Your task to perform on an android device: change your default location settings in chrome Image 0: 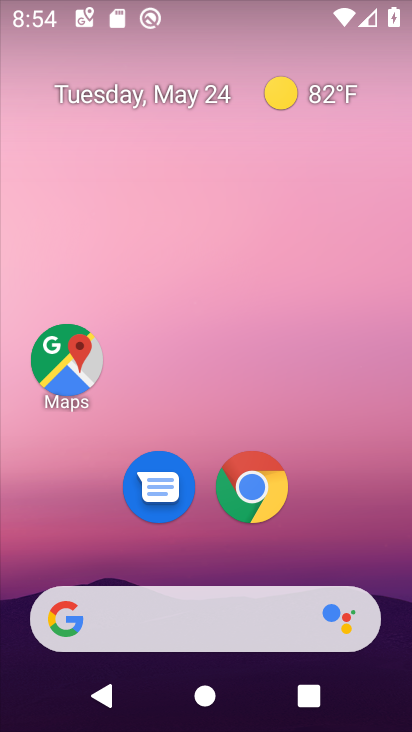
Step 0: drag from (326, 538) to (306, 166)
Your task to perform on an android device: change your default location settings in chrome Image 1: 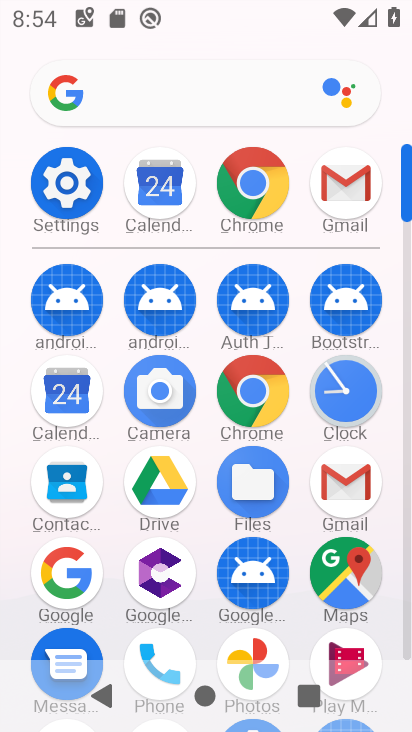
Step 1: click (249, 408)
Your task to perform on an android device: change your default location settings in chrome Image 2: 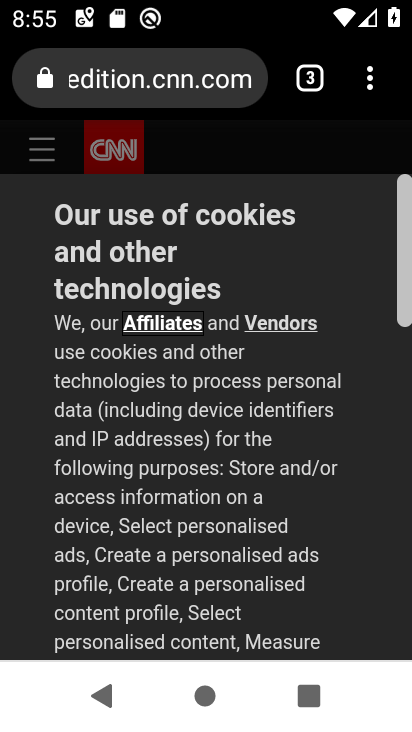
Step 2: drag from (377, 89) to (150, 538)
Your task to perform on an android device: change your default location settings in chrome Image 3: 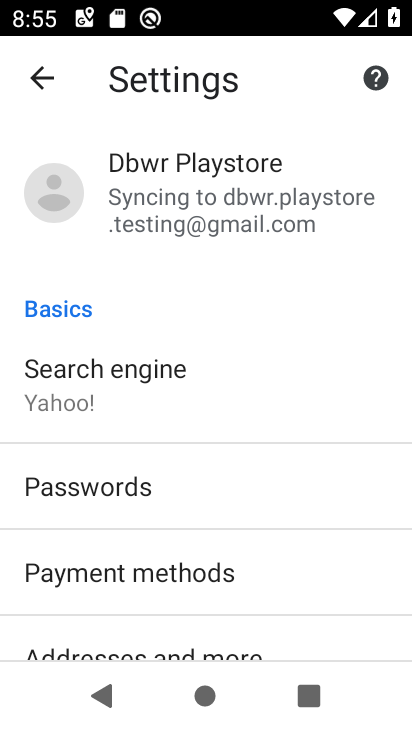
Step 3: drag from (293, 540) to (284, 265)
Your task to perform on an android device: change your default location settings in chrome Image 4: 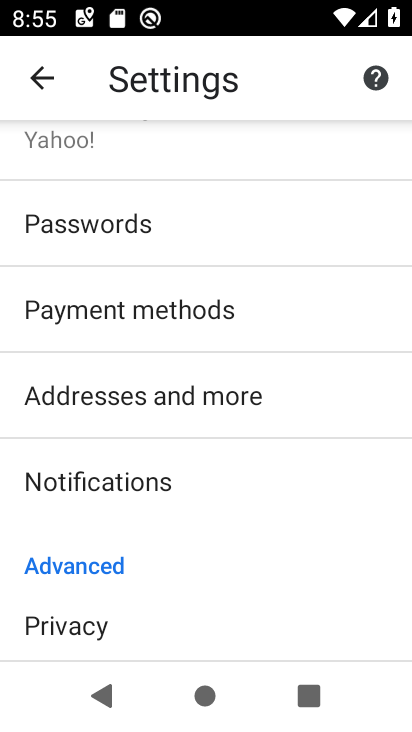
Step 4: drag from (259, 222) to (252, 652)
Your task to perform on an android device: change your default location settings in chrome Image 5: 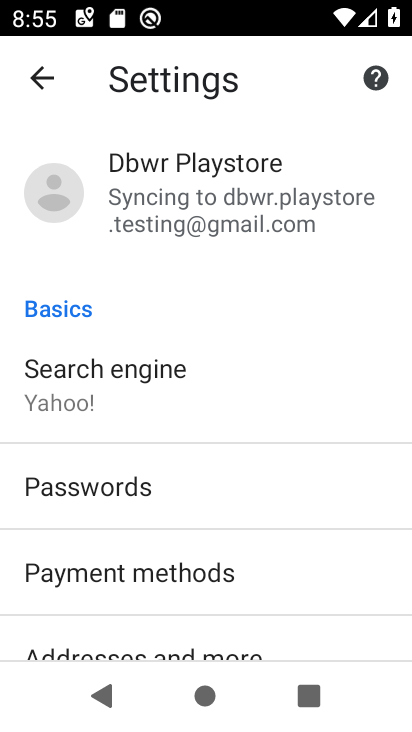
Step 5: drag from (241, 645) to (253, 275)
Your task to perform on an android device: change your default location settings in chrome Image 6: 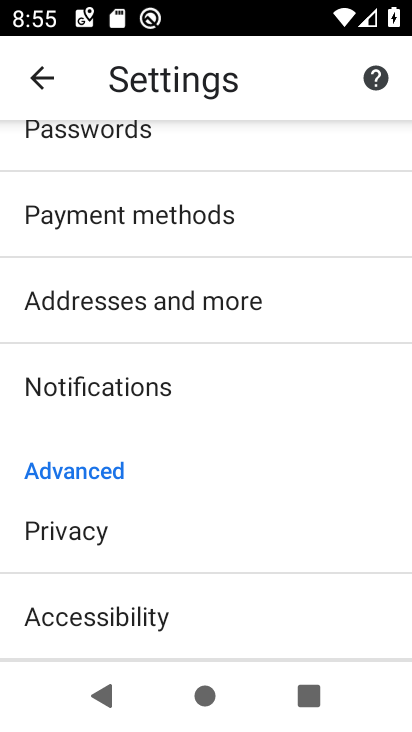
Step 6: drag from (135, 585) to (218, 265)
Your task to perform on an android device: change your default location settings in chrome Image 7: 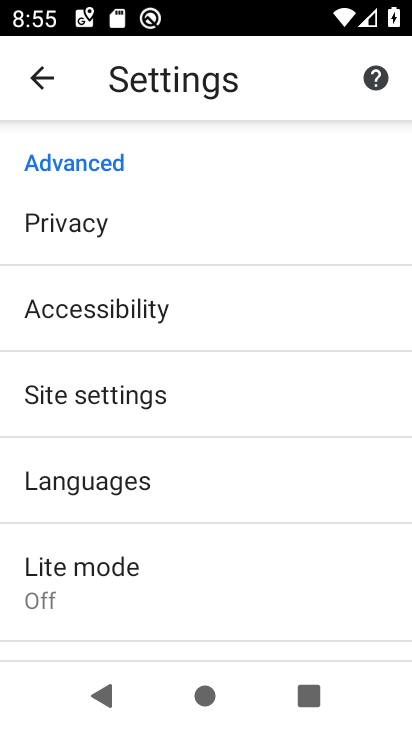
Step 7: click (143, 387)
Your task to perform on an android device: change your default location settings in chrome Image 8: 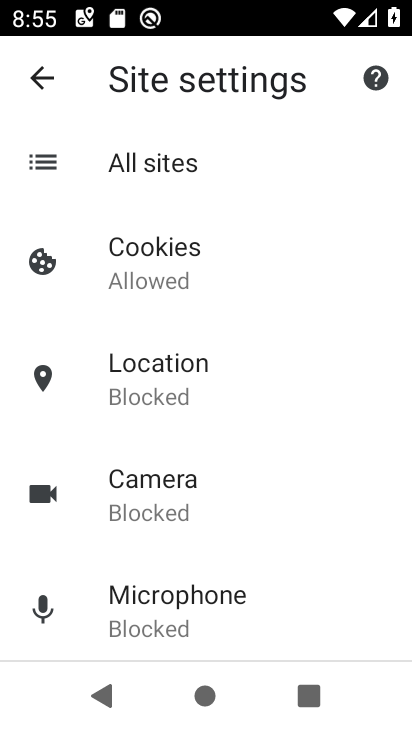
Step 8: drag from (197, 538) to (247, 252)
Your task to perform on an android device: change your default location settings in chrome Image 9: 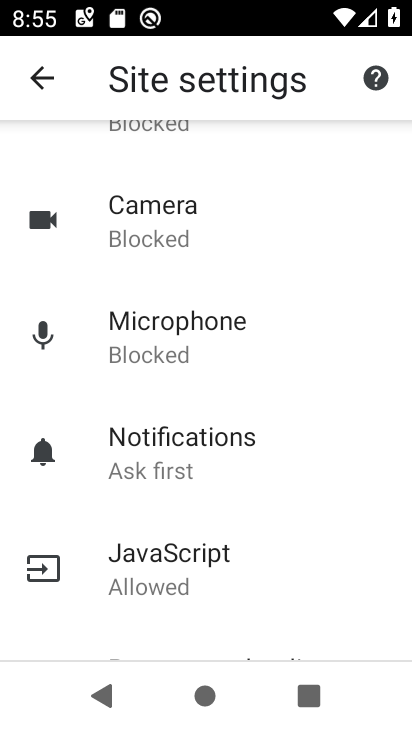
Step 9: drag from (209, 489) to (296, 186)
Your task to perform on an android device: change your default location settings in chrome Image 10: 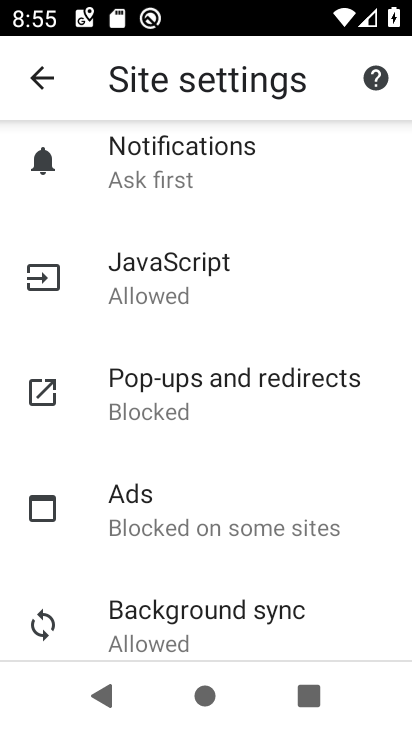
Step 10: drag from (259, 179) to (260, 428)
Your task to perform on an android device: change your default location settings in chrome Image 11: 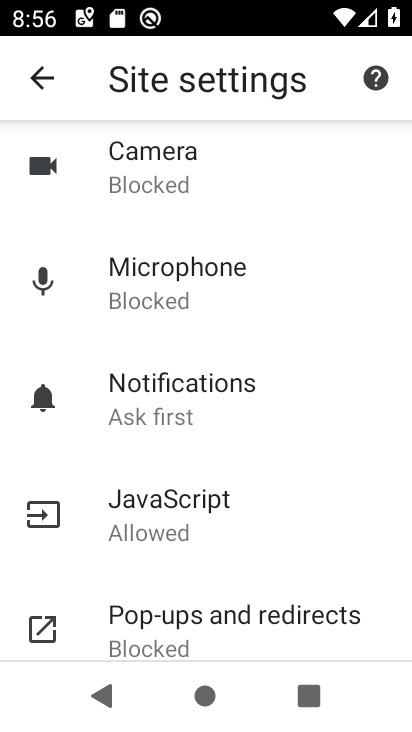
Step 11: drag from (224, 214) to (153, 548)
Your task to perform on an android device: change your default location settings in chrome Image 12: 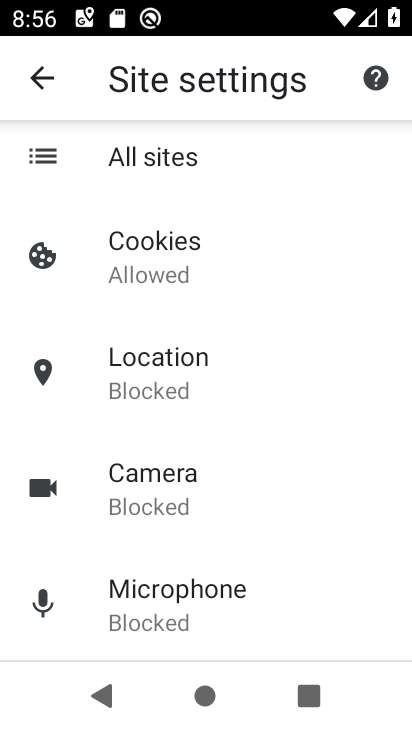
Step 12: drag from (224, 250) to (231, 403)
Your task to perform on an android device: change your default location settings in chrome Image 13: 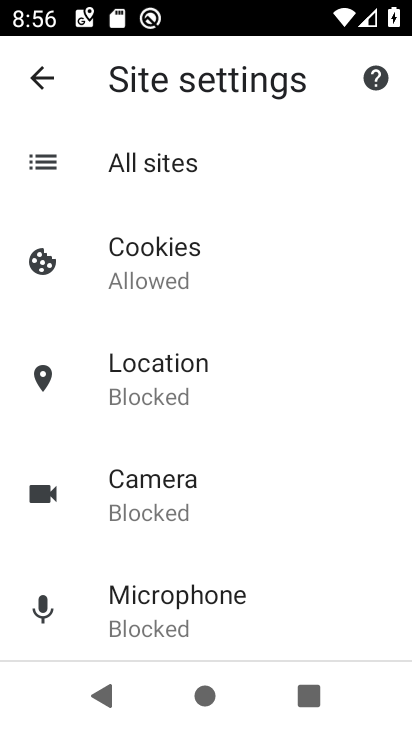
Step 13: drag from (215, 583) to (245, 285)
Your task to perform on an android device: change your default location settings in chrome Image 14: 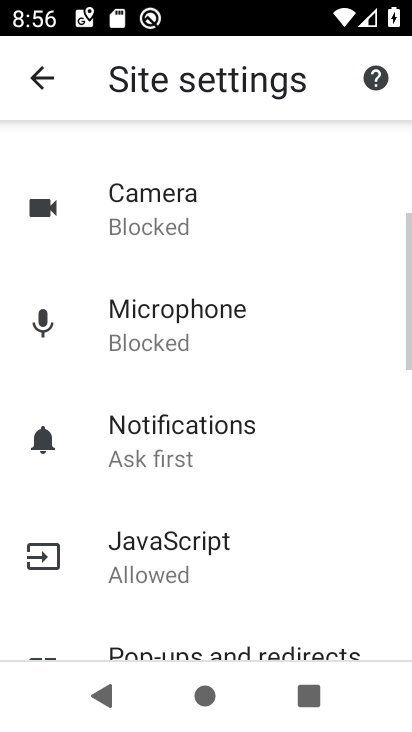
Step 14: drag from (237, 602) to (276, 309)
Your task to perform on an android device: change your default location settings in chrome Image 15: 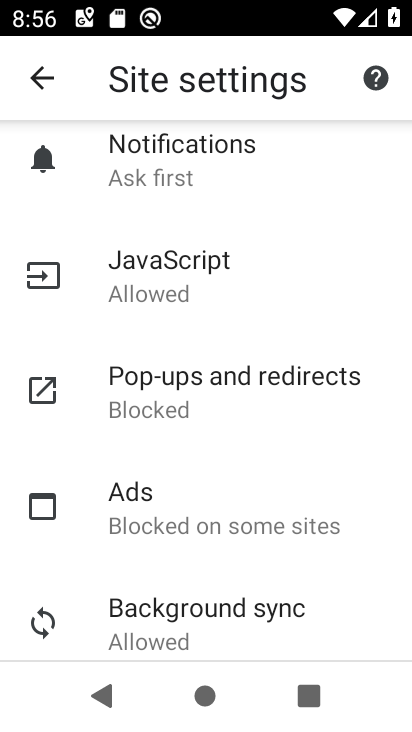
Step 15: drag from (241, 525) to (271, 278)
Your task to perform on an android device: change your default location settings in chrome Image 16: 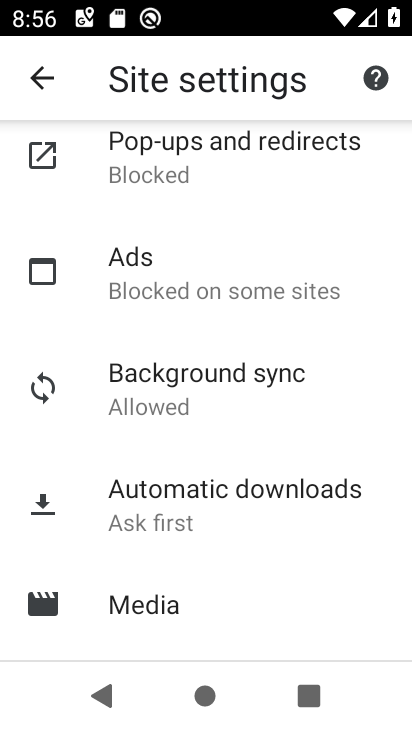
Step 16: drag from (246, 216) to (194, 549)
Your task to perform on an android device: change your default location settings in chrome Image 17: 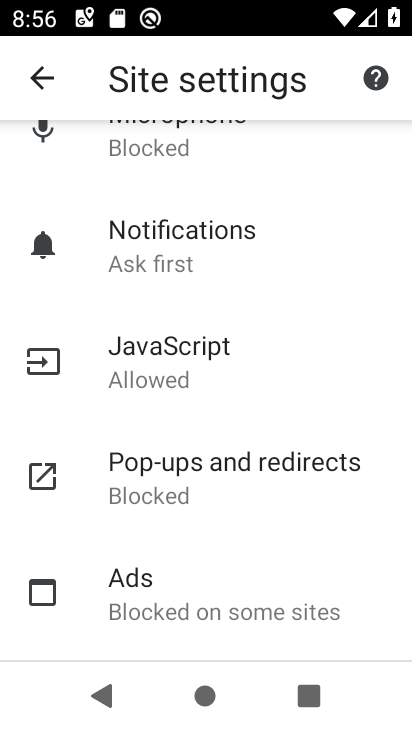
Step 17: drag from (226, 291) to (228, 556)
Your task to perform on an android device: change your default location settings in chrome Image 18: 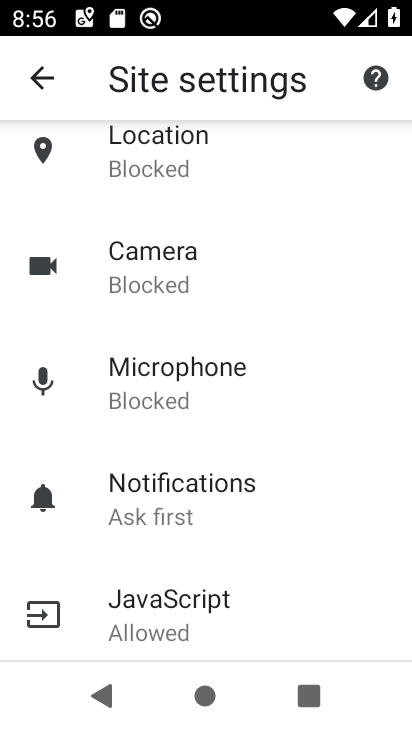
Step 18: drag from (196, 206) to (190, 566)
Your task to perform on an android device: change your default location settings in chrome Image 19: 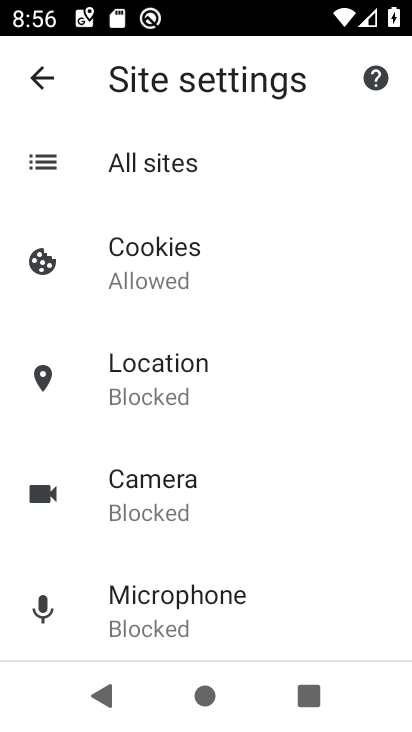
Step 19: click (194, 381)
Your task to perform on an android device: change your default location settings in chrome Image 20: 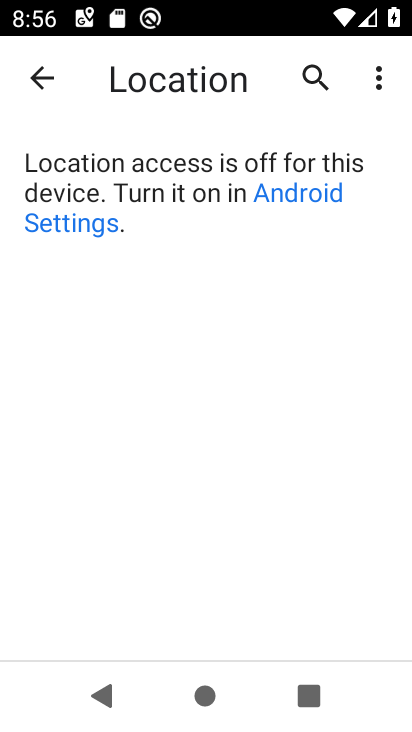
Step 20: click (383, 87)
Your task to perform on an android device: change your default location settings in chrome Image 21: 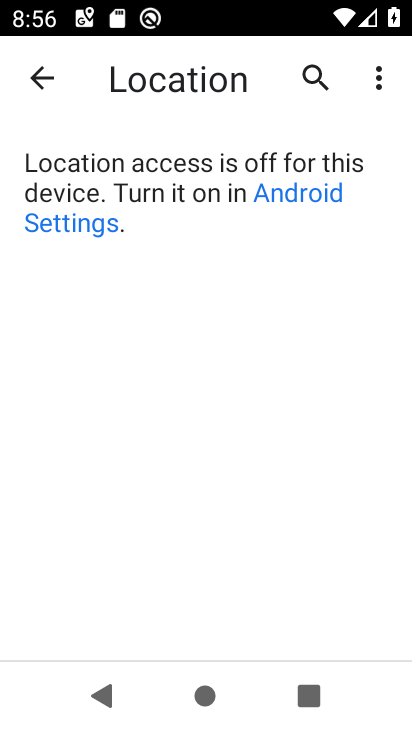
Step 21: task complete